Your task to perform on an android device: show emergency info Image 0: 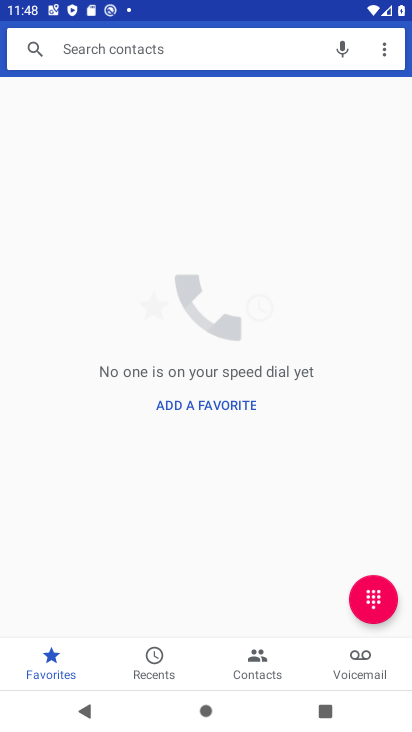
Step 0: press back button
Your task to perform on an android device: show emergency info Image 1: 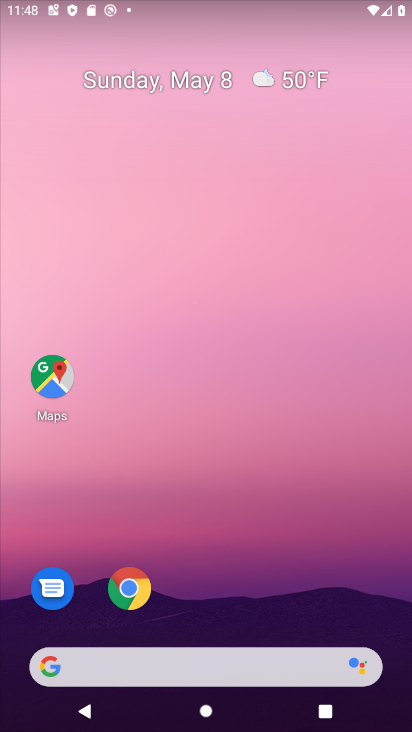
Step 1: drag from (197, 597) to (291, 6)
Your task to perform on an android device: show emergency info Image 2: 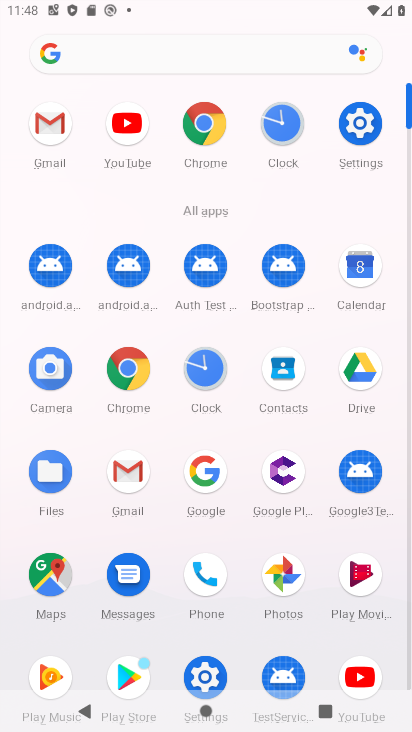
Step 2: click (359, 114)
Your task to perform on an android device: show emergency info Image 3: 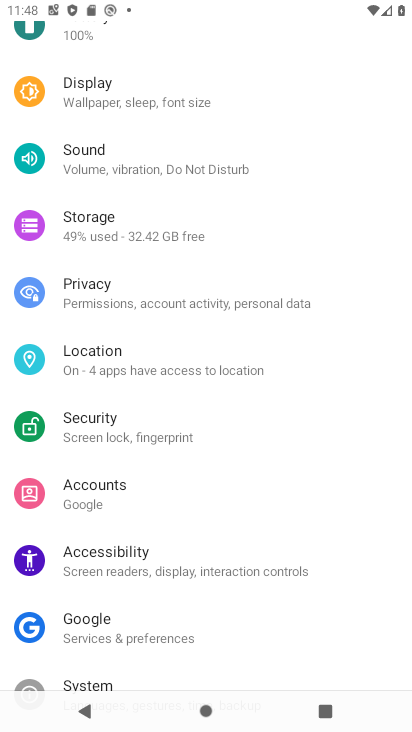
Step 3: drag from (139, 636) to (268, 27)
Your task to perform on an android device: show emergency info Image 4: 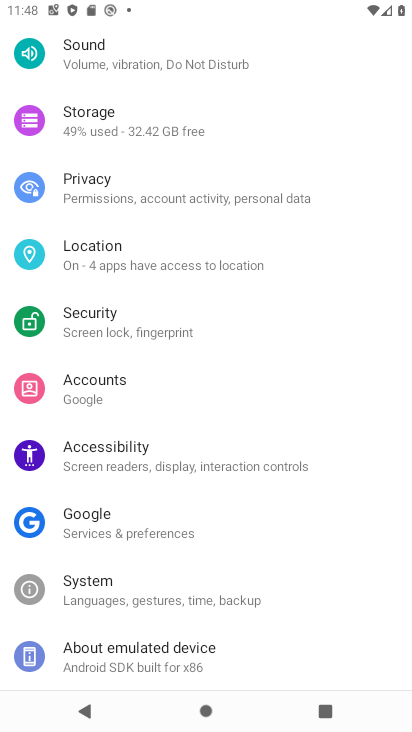
Step 4: click (134, 662)
Your task to perform on an android device: show emergency info Image 5: 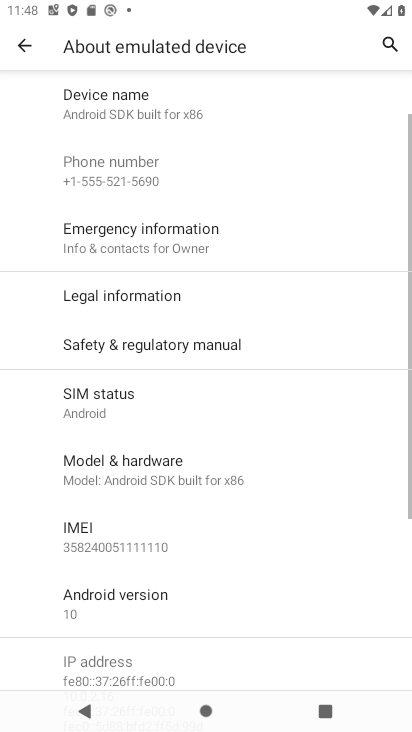
Step 5: click (146, 233)
Your task to perform on an android device: show emergency info Image 6: 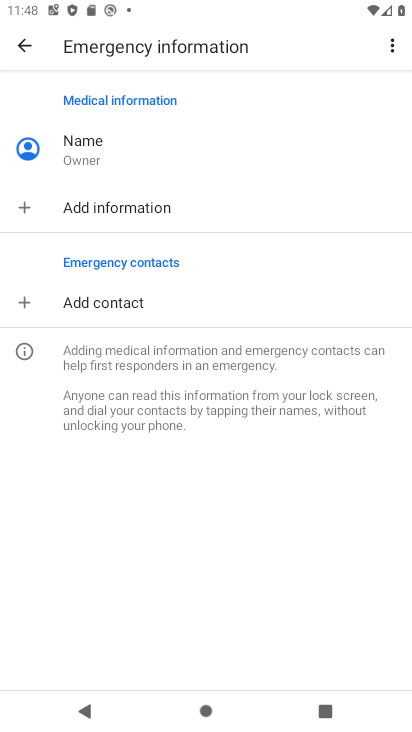
Step 6: task complete